Your task to perform on an android device: Go to Google maps Image 0: 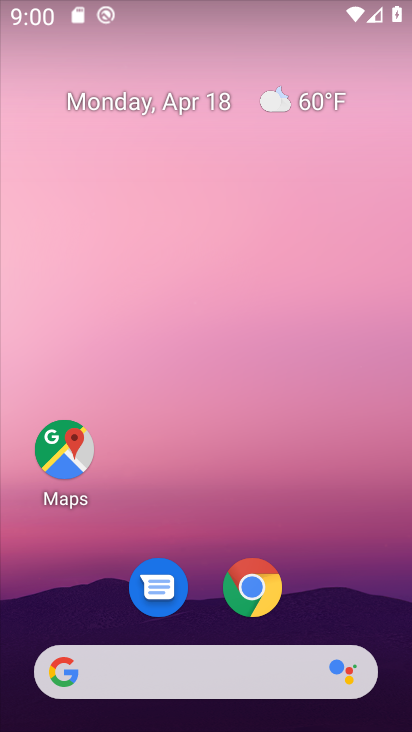
Step 0: click (62, 462)
Your task to perform on an android device: Go to Google maps Image 1: 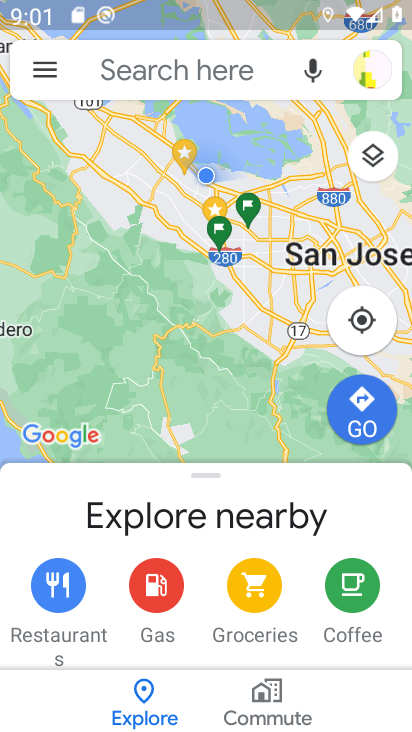
Step 1: task complete